Your task to perform on an android device: empty trash in google photos Image 0: 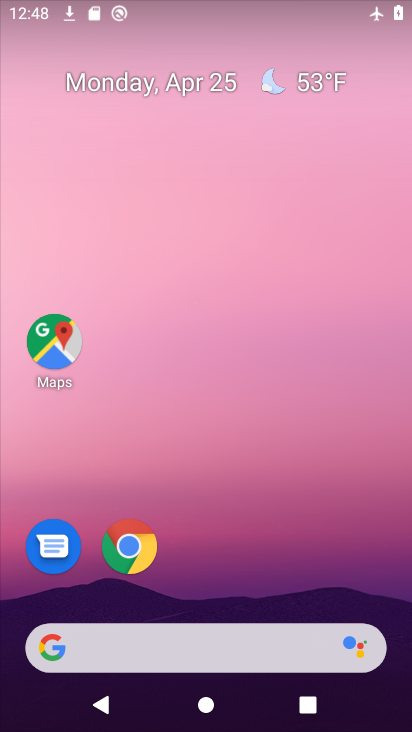
Step 0: drag from (283, 580) to (262, 27)
Your task to perform on an android device: empty trash in google photos Image 1: 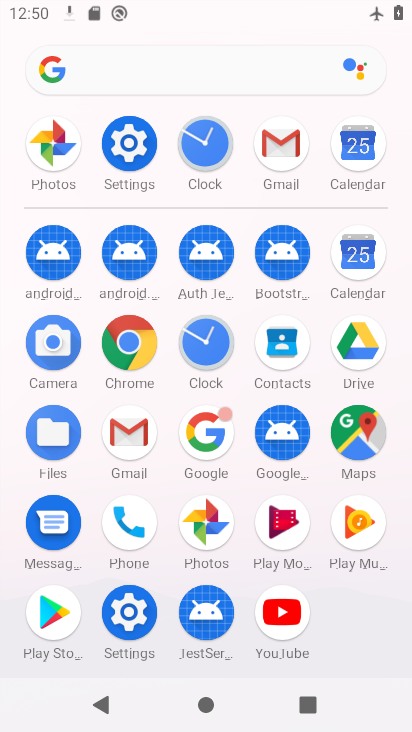
Step 1: click (128, 155)
Your task to perform on an android device: empty trash in google photos Image 2: 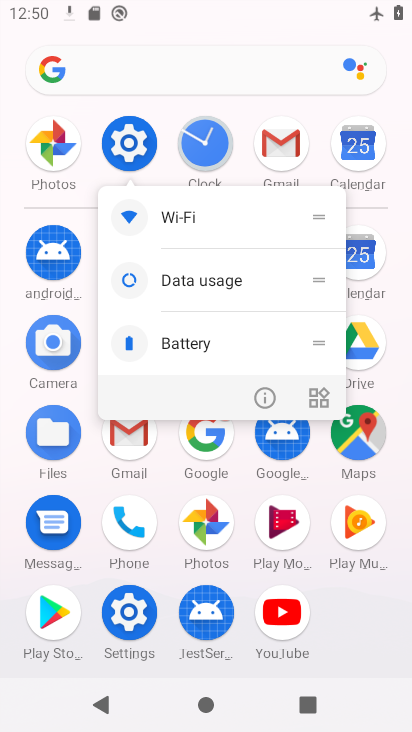
Step 2: click (203, 512)
Your task to perform on an android device: empty trash in google photos Image 3: 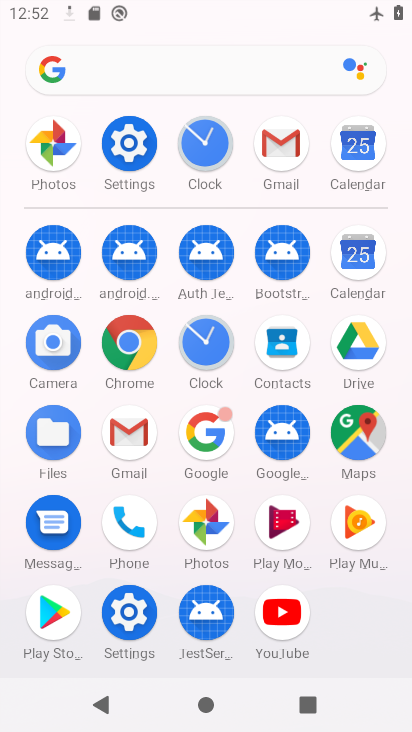
Step 3: click (205, 530)
Your task to perform on an android device: empty trash in google photos Image 4: 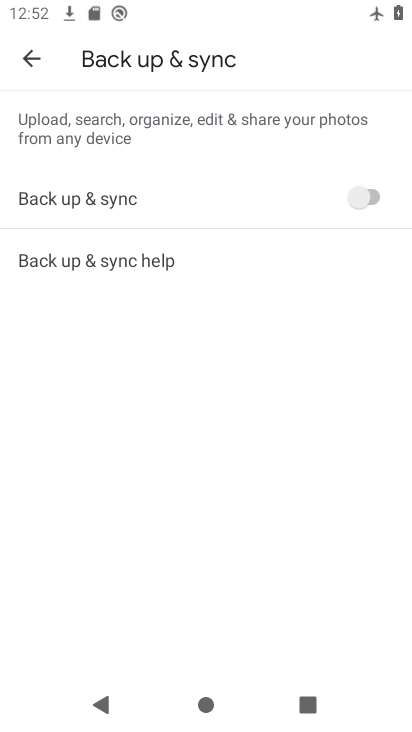
Step 4: click (37, 57)
Your task to perform on an android device: empty trash in google photos Image 5: 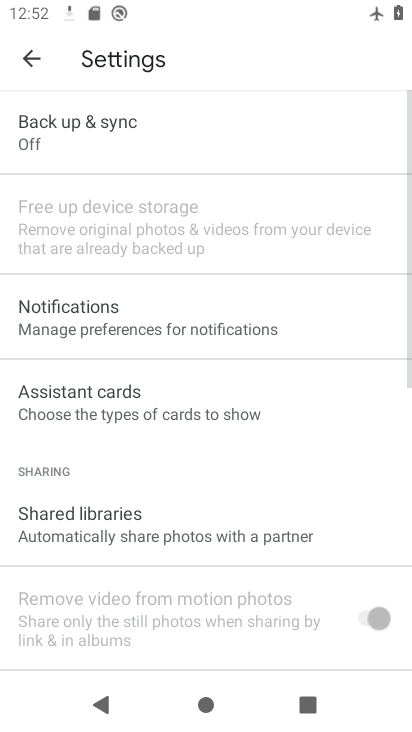
Step 5: click (37, 57)
Your task to perform on an android device: empty trash in google photos Image 6: 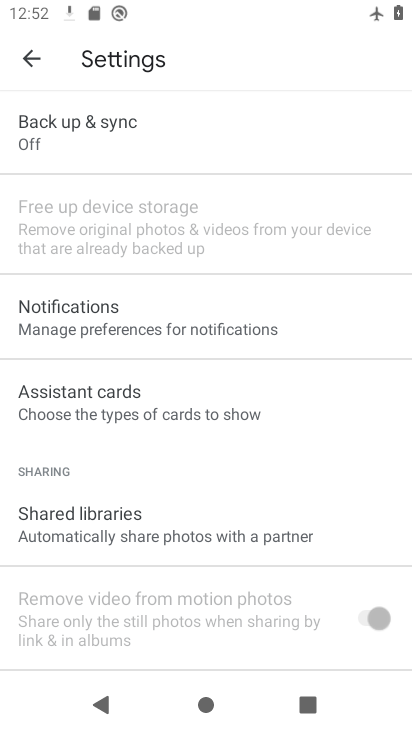
Step 6: click (37, 57)
Your task to perform on an android device: empty trash in google photos Image 7: 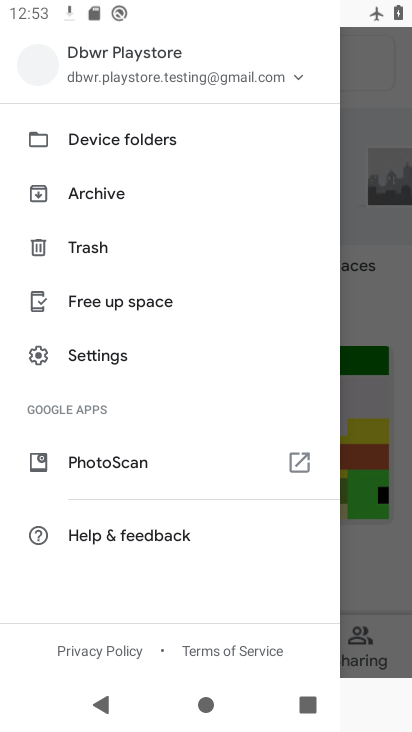
Step 7: click (102, 246)
Your task to perform on an android device: empty trash in google photos Image 8: 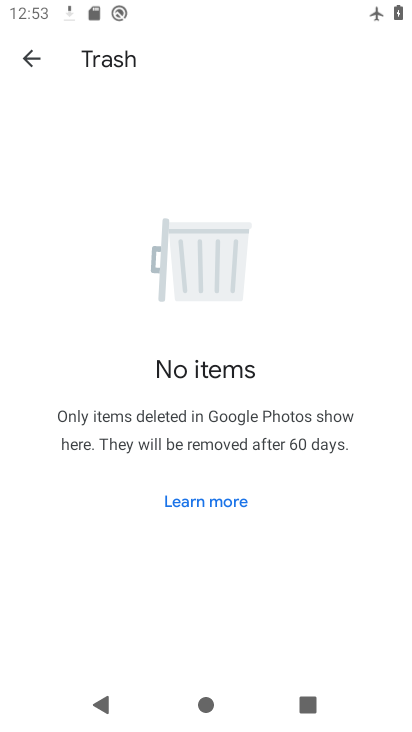
Step 8: task complete